Your task to perform on an android device: change keyboard looks Image 0: 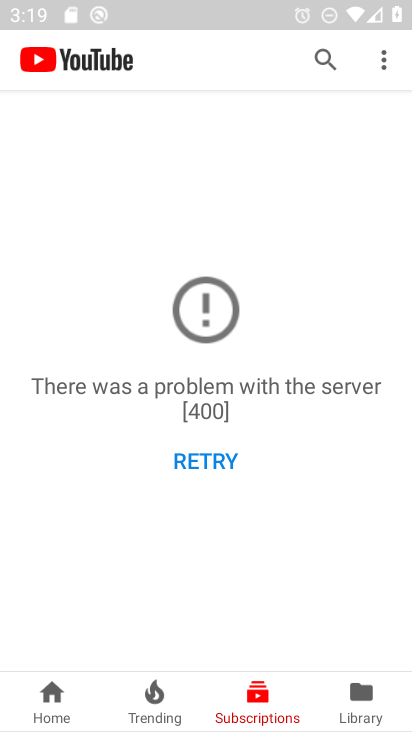
Step 0: press home button
Your task to perform on an android device: change keyboard looks Image 1: 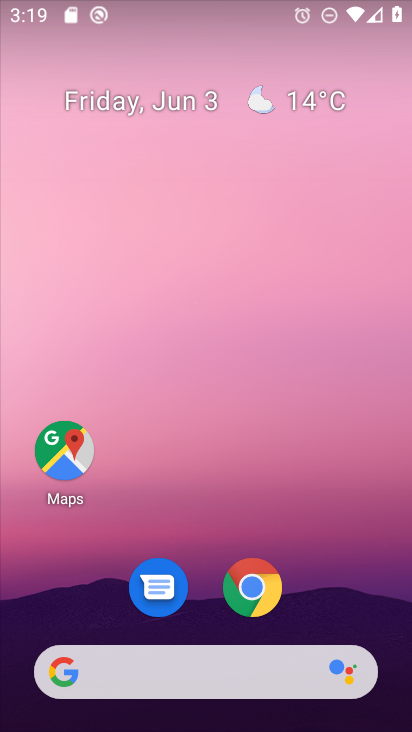
Step 1: drag from (217, 719) to (225, 77)
Your task to perform on an android device: change keyboard looks Image 2: 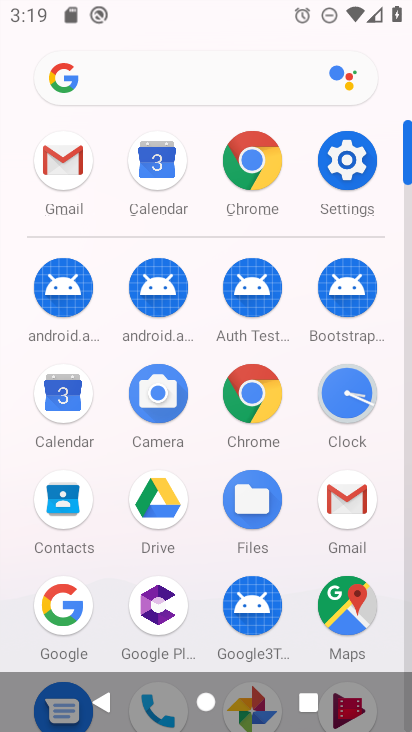
Step 2: click (354, 154)
Your task to perform on an android device: change keyboard looks Image 3: 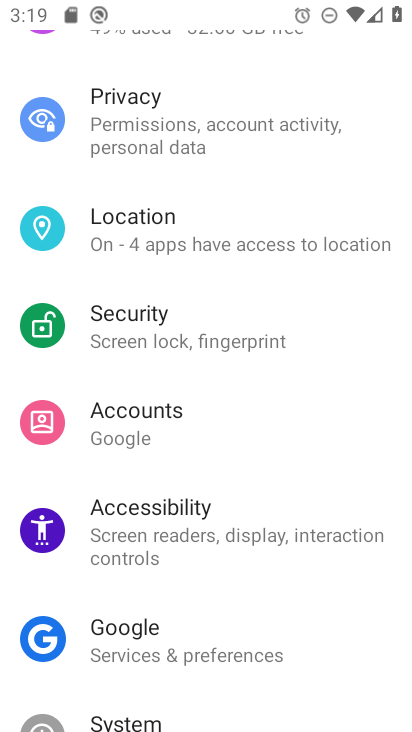
Step 3: drag from (151, 688) to (167, 286)
Your task to perform on an android device: change keyboard looks Image 4: 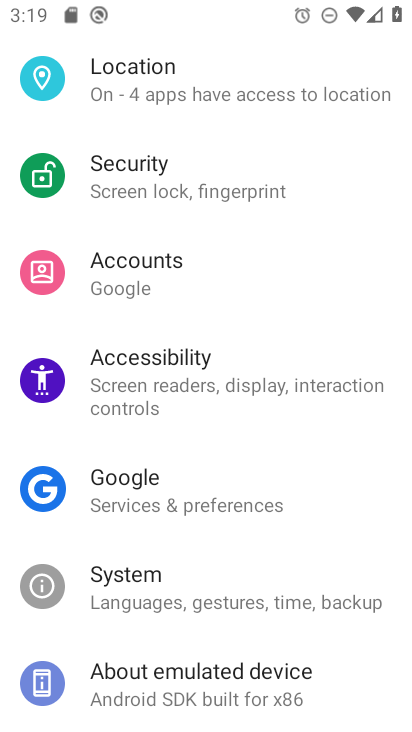
Step 4: click (143, 601)
Your task to perform on an android device: change keyboard looks Image 5: 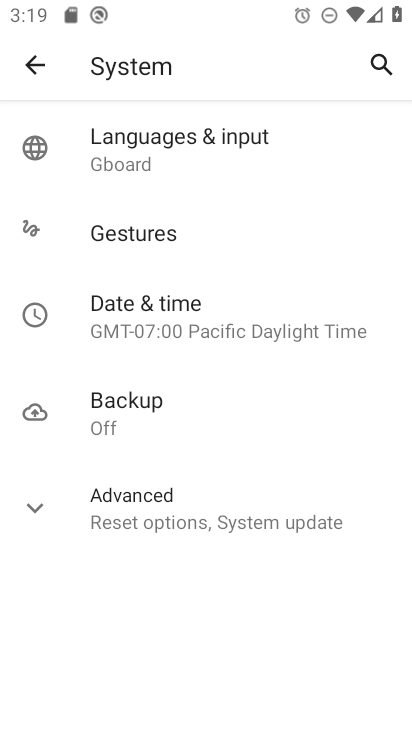
Step 5: click (143, 149)
Your task to perform on an android device: change keyboard looks Image 6: 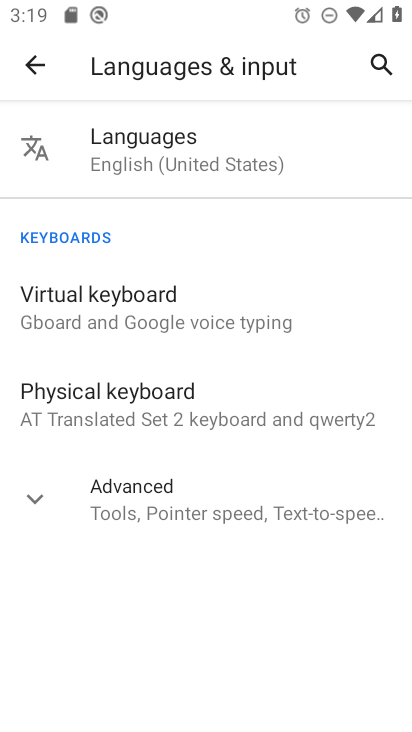
Step 6: click (150, 310)
Your task to perform on an android device: change keyboard looks Image 7: 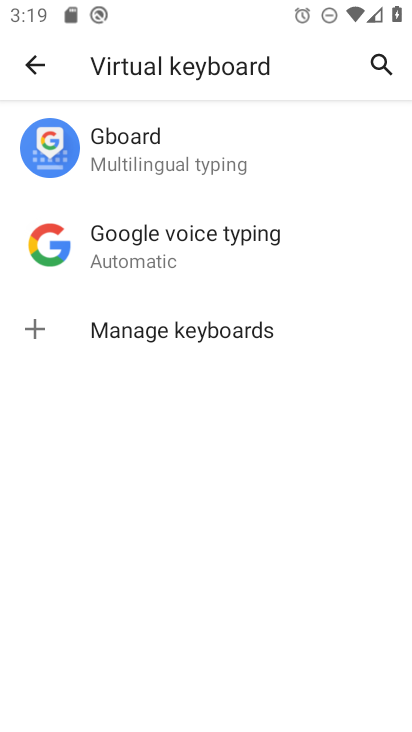
Step 7: click (127, 142)
Your task to perform on an android device: change keyboard looks Image 8: 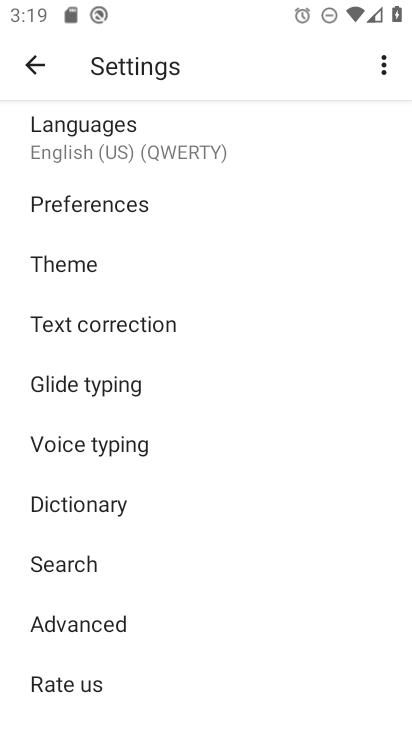
Step 8: click (74, 263)
Your task to perform on an android device: change keyboard looks Image 9: 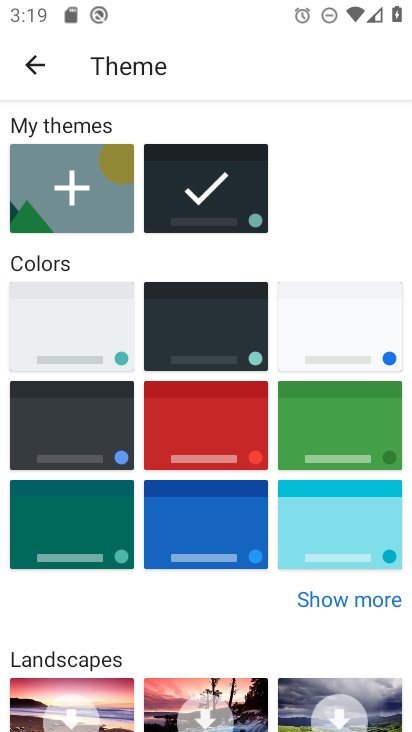
Step 9: click (223, 349)
Your task to perform on an android device: change keyboard looks Image 10: 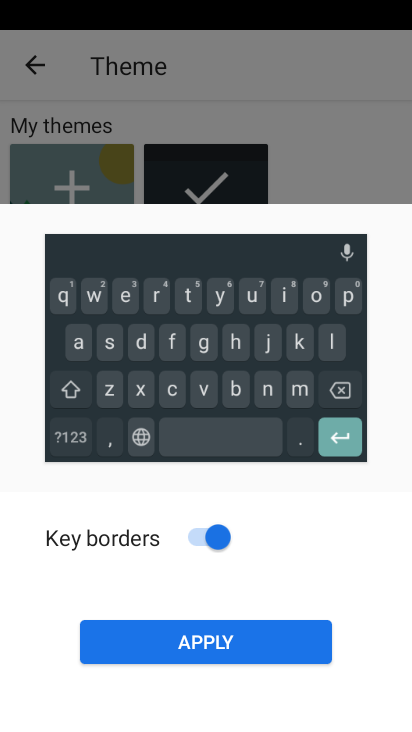
Step 10: click (198, 642)
Your task to perform on an android device: change keyboard looks Image 11: 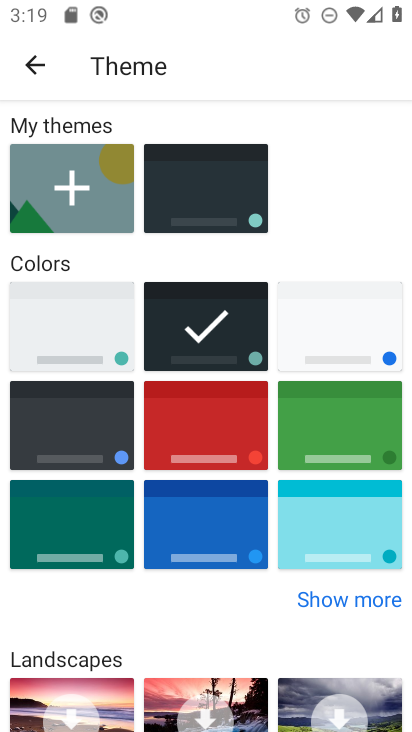
Step 11: task complete